Your task to perform on an android device: add a contact in the contacts app Image 0: 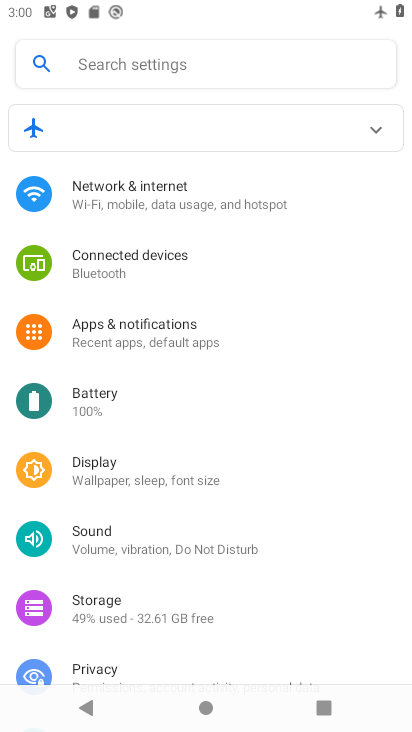
Step 0: press home button
Your task to perform on an android device: add a contact in the contacts app Image 1: 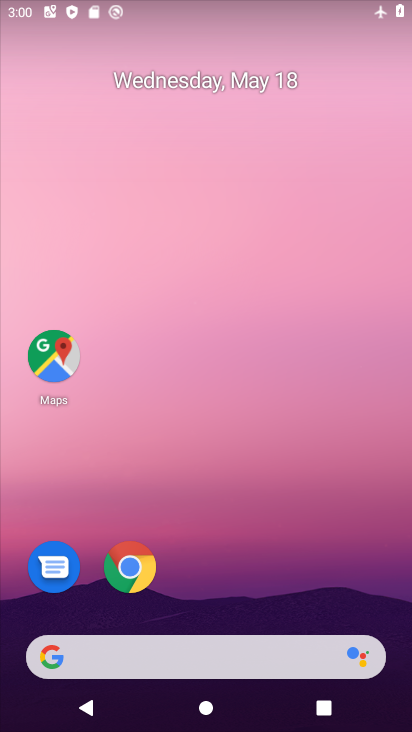
Step 1: drag from (276, 610) to (285, 269)
Your task to perform on an android device: add a contact in the contacts app Image 2: 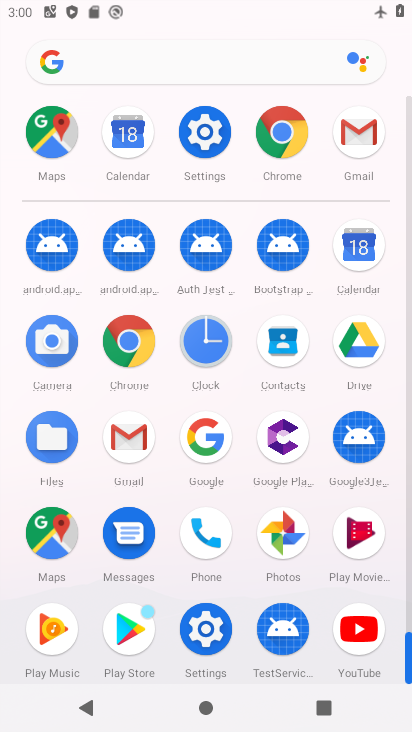
Step 2: click (204, 518)
Your task to perform on an android device: add a contact in the contacts app Image 3: 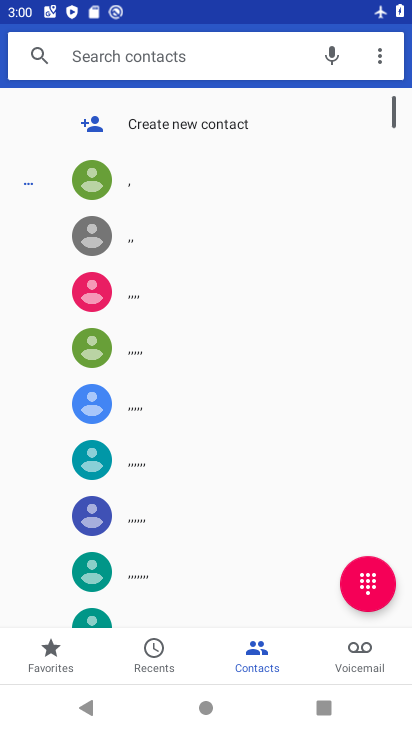
Step 3: click (158, 126)
Your task to perform on an android device: add a contact in the contacts app Image 4: 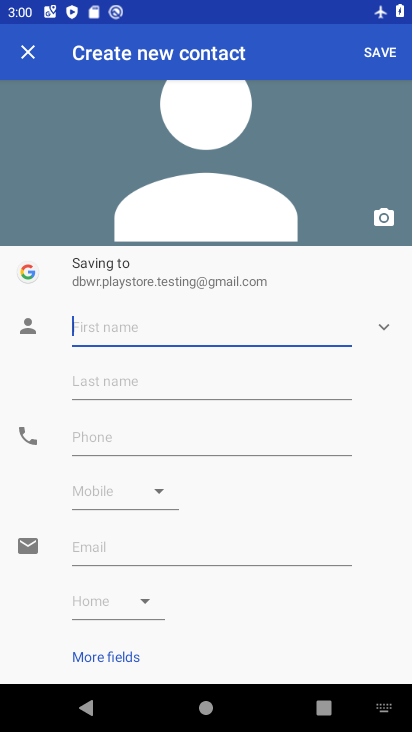
Step 4: click (209, 319)
Your task to perform on an android device: add a contact in the contacts app Image 5: 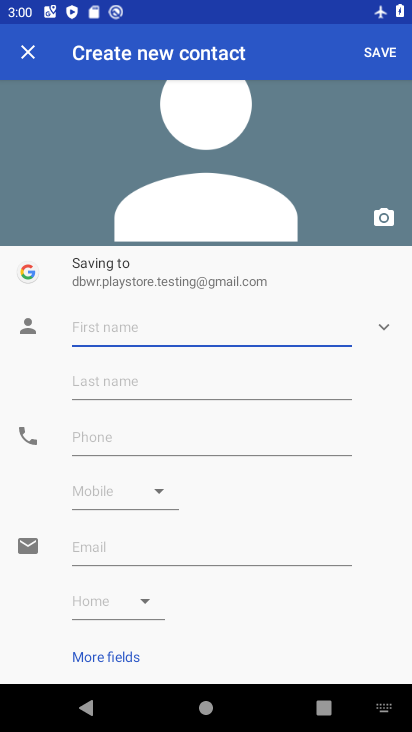
Step 5: type "jgjgjgggg"
Your task to perform on an android device: add a contact in the contacts app Image 6: 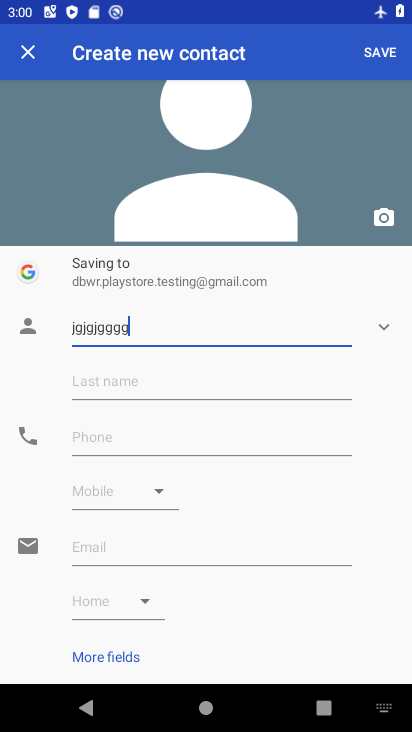
Step 6: click (174, 445)
Your task to perform on an android device: add a contact in the contacts app Image 7: 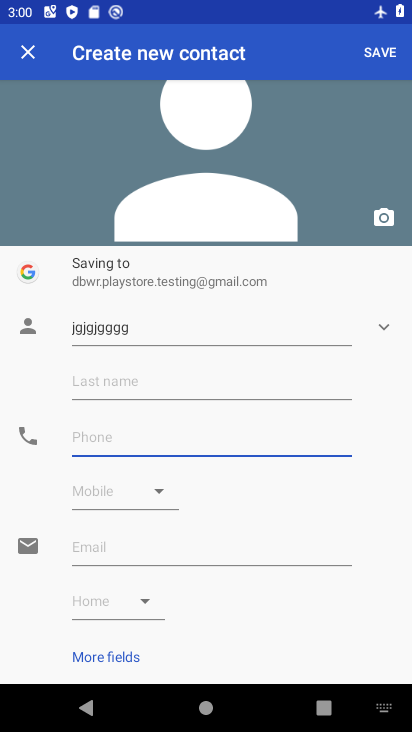
Step 7: type "98765"
Your task to perform on an android device: add a contact in the contacts app Image 8: 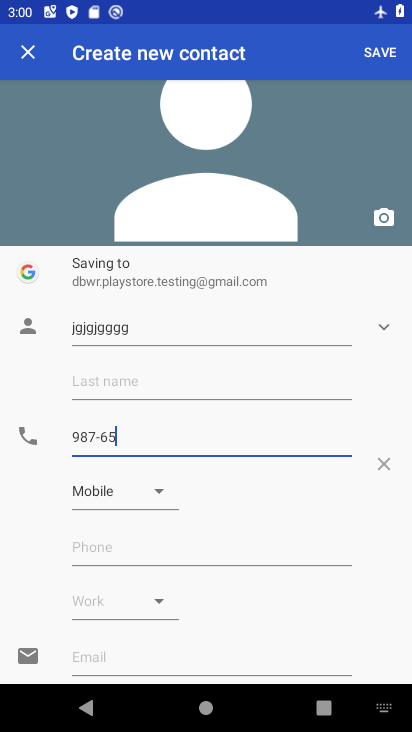
Step 8: click (371, 42)
Your task to perform on an android device: add a contact in the contacts app Image 9: 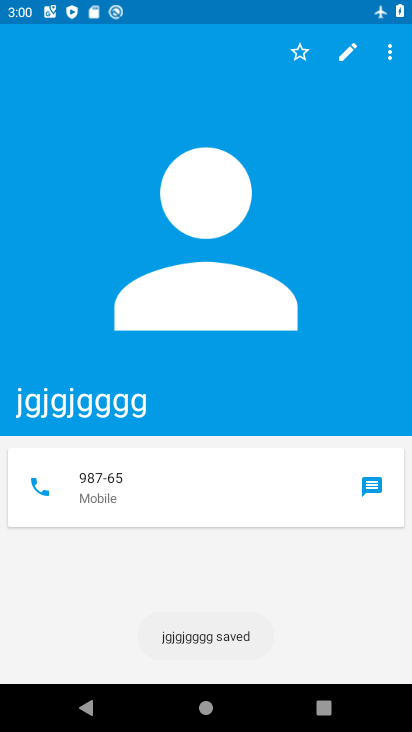
Step 9: task complete